Your task to perform on an android device: Open ESPN.com Image 0: 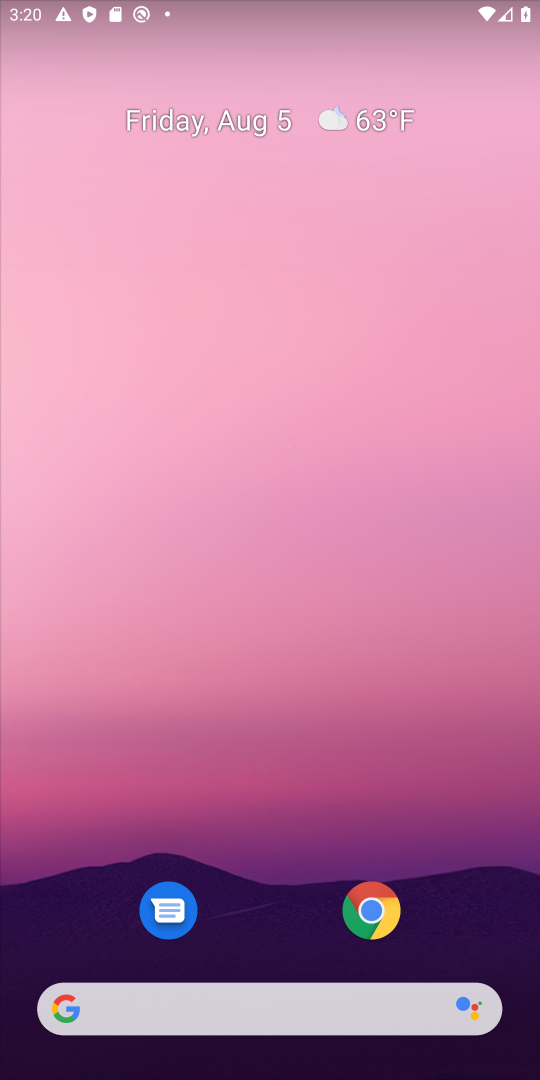
Step 0: click (388, 913)
Your task to perform on an android device: Open ESPN.com Image 1: 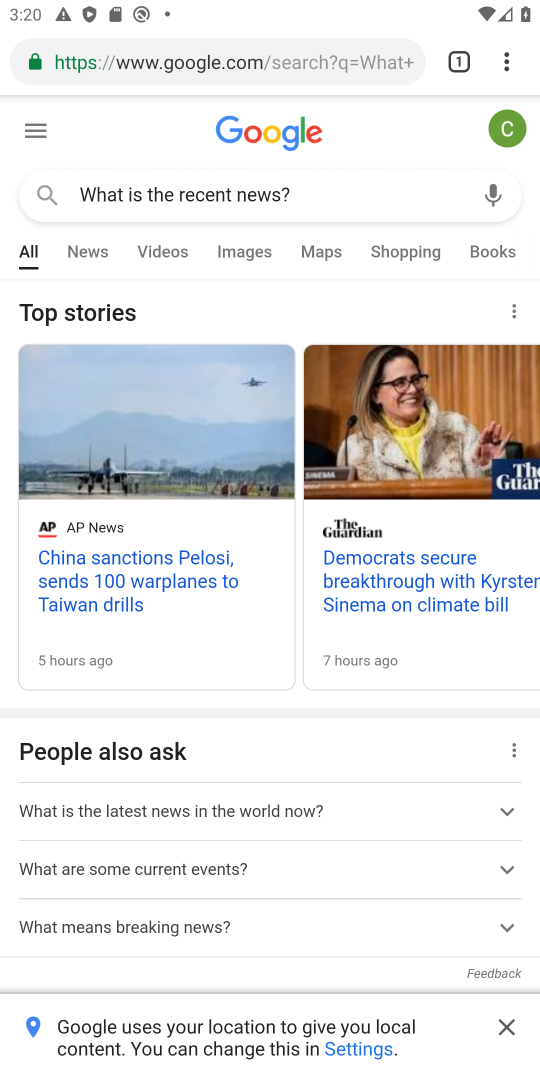
Step 1: click (460, 62)
Your task to perform on an android device: Open ESPN.com Image 2: 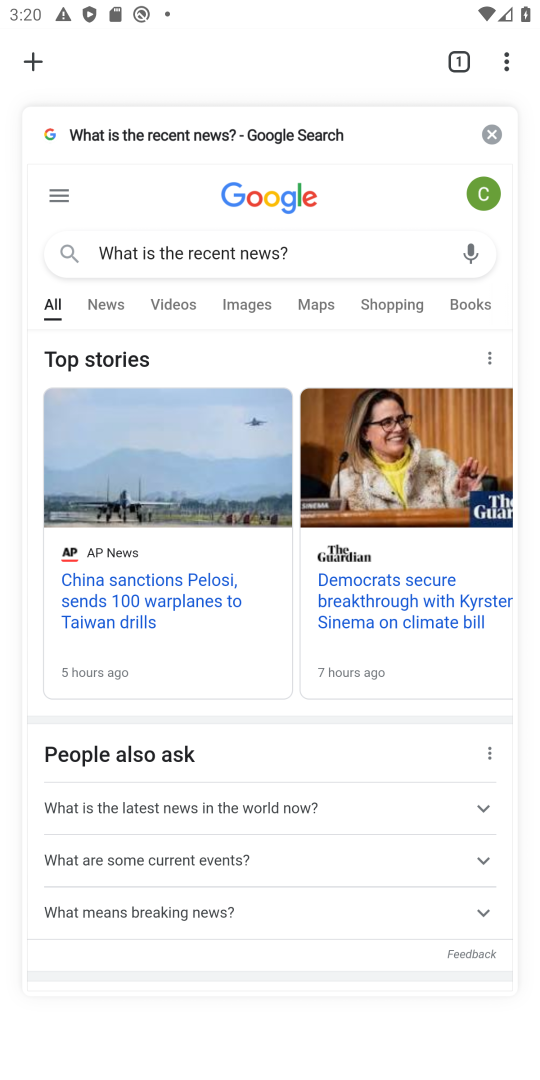
Step 2: click (31, 62)
Your task to perform on an android device: Open ESPN.com Image 3: 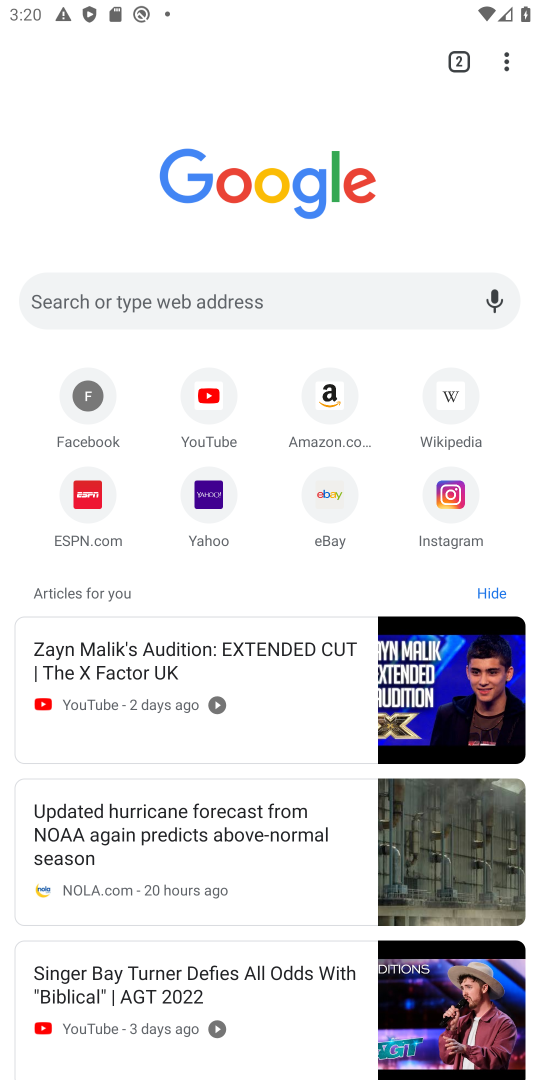
Step 3: click (93, 524)
Your task to perform on an android device: Open ESPN.com Image 4: 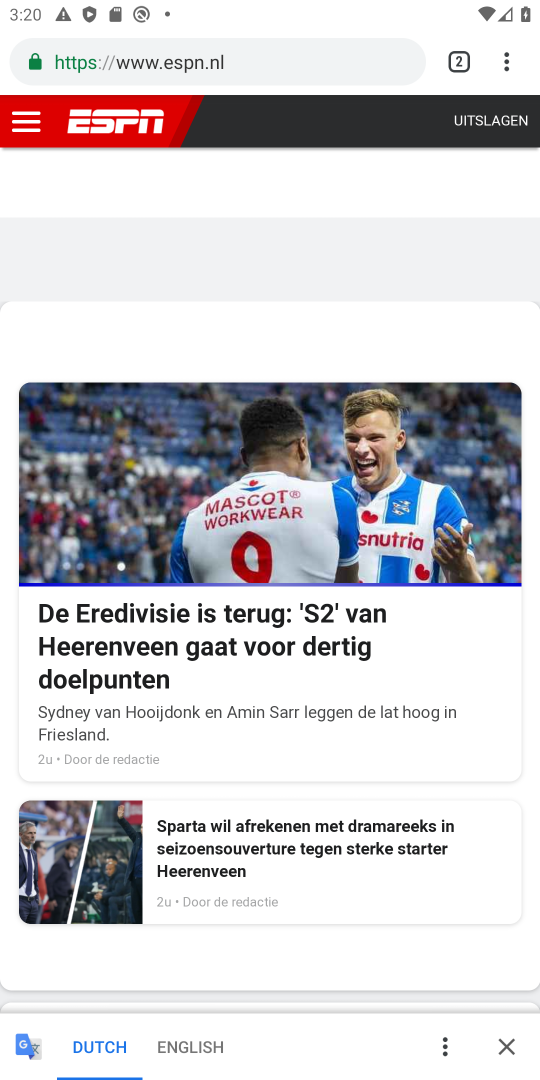
Step 4: task complete